Your task to perform on an android device: empty trash in google photos Image 0: 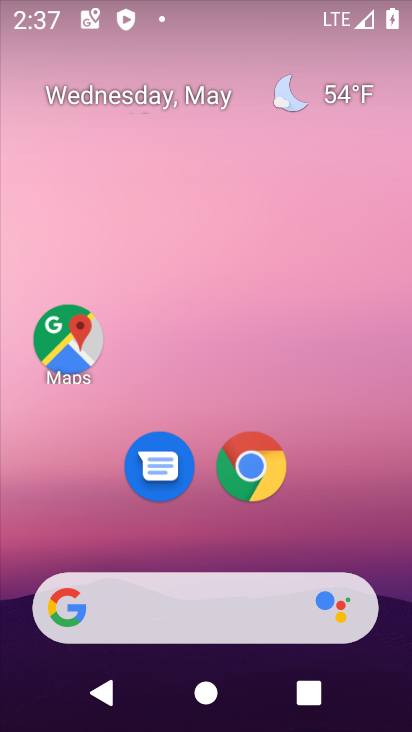
Step 0: drag from (397, 585) to (333, 249)
Your task to perform on an android device: empty trash in google photos Image 1: 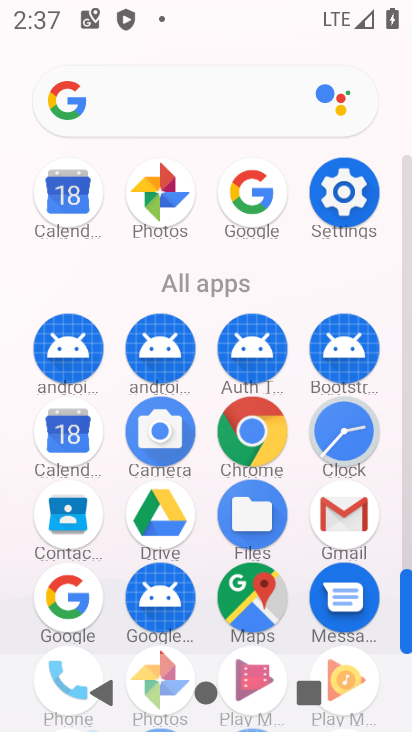
Step 1: click (328, 512)
Your task to perform on an android device: empty trash in google photos Image 2: 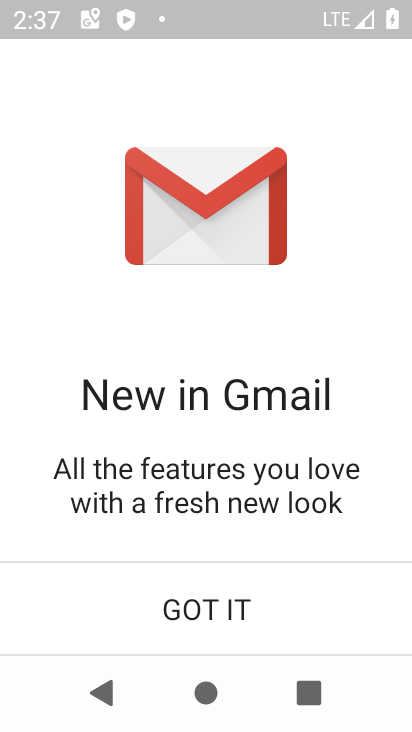
Step 2: press back button
Your task to perform on an android device: empty trash in google photos Image 3: 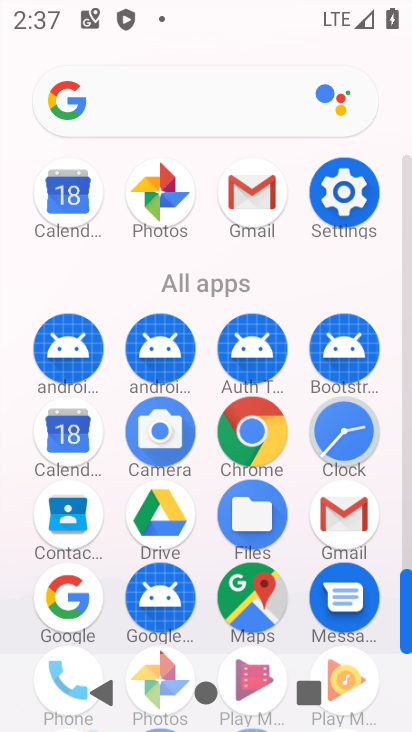
Step 3: click (161, 648)
Your task to perform on an android device: empty trash in google photos Image 4: 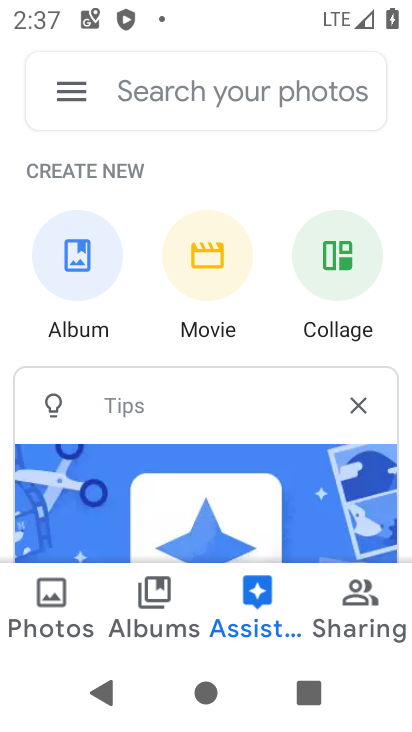
Step 4: click (79, 98)
Your task to perform on an android device: empty trash in google photos Image 5: 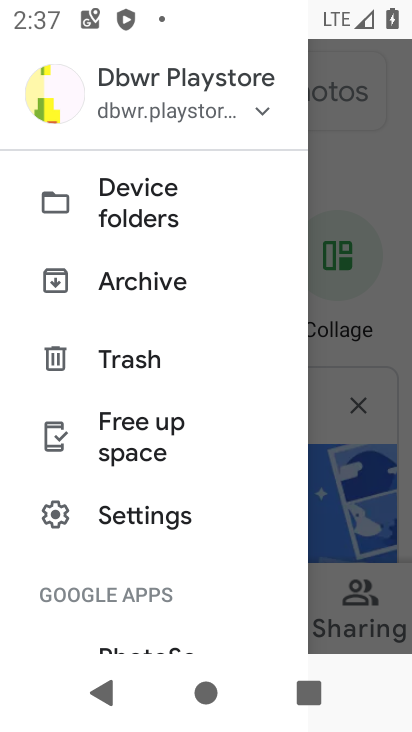
Step 5: click (140, 363)
Your task to perform on an android device: empty trash in google photos Image 6: 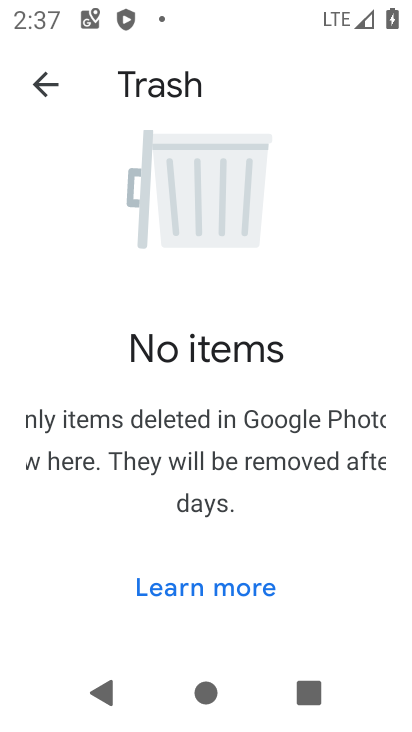
Step 6: task complete